Your task to perform on an android device: Go to battery settings Image 0: 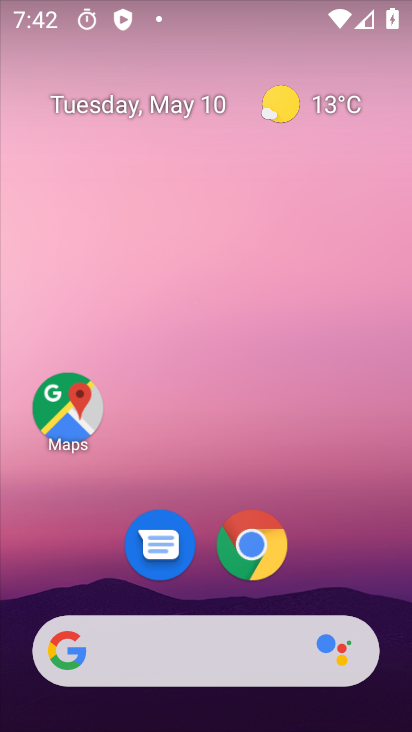
Step 0: drag from (206, 590) to (241, 169)
Your task to perform on an android device: Go to battery settings Image 1: 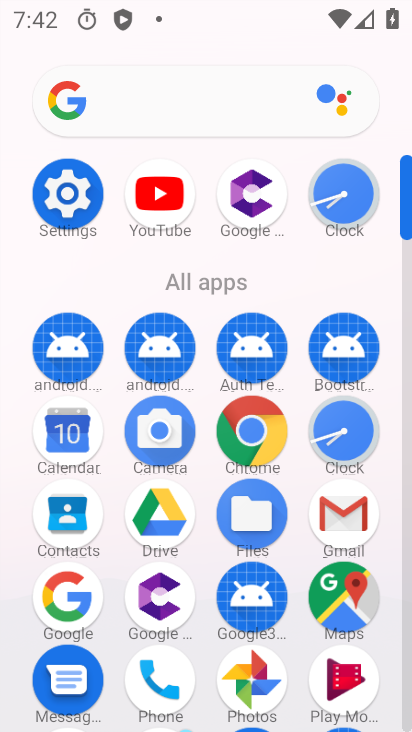
Step 1: click (67, 194)
Your task to perform on an android device: Go to battery settings Image 2: 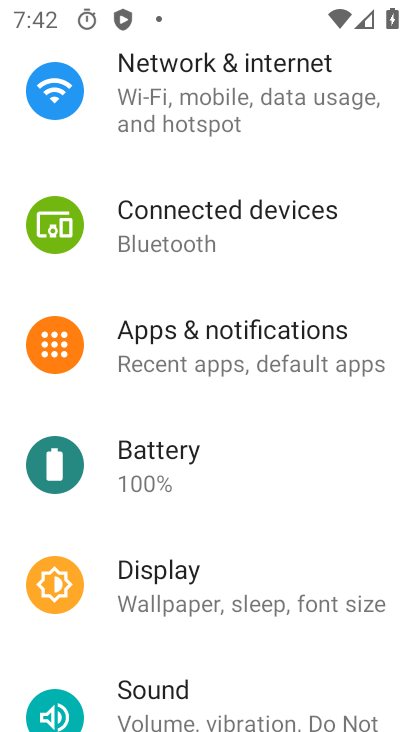
Step 2: click (183, 469)
Your task to perform on an android device: Go to battery settings Image 3: 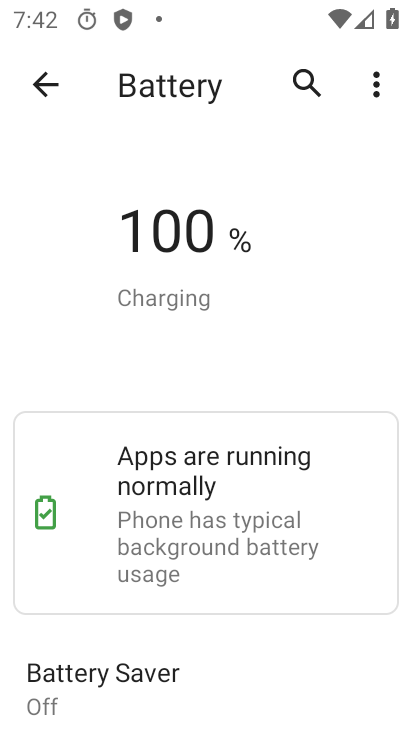
Step 3: task complete